Your task to perform on an android device: Open the Play Movies app and select the watchlist tab. Image 0: 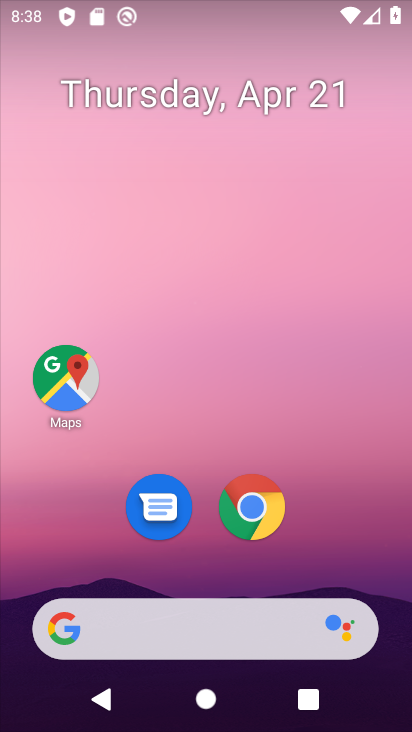
Step 0: drag from (365, 549) to (355, 82)
Your task to perform on an android device: Open the Play Movies app and select the watchlist tab. Image 1: 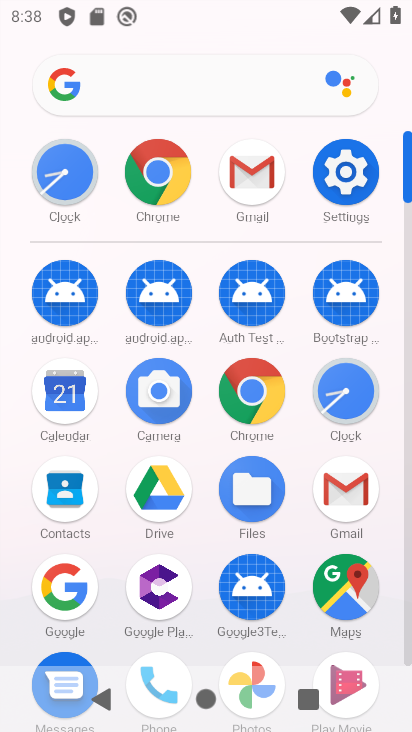
Step 1: drag from (383, 528) to (386, 220)
Your task to perform on an android device: Open the Play Movies app and select the watchlist tab. Image 2: 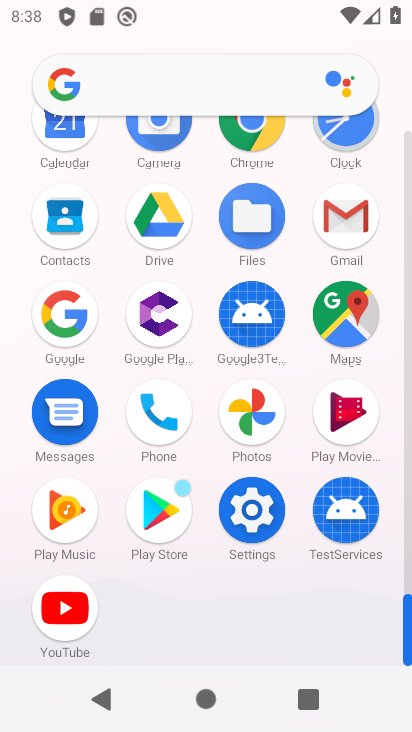
Step 2: click (356, 409)
Your task to perform on an android device: Open the Play Movies app and select the watchlist tab. Image 3: 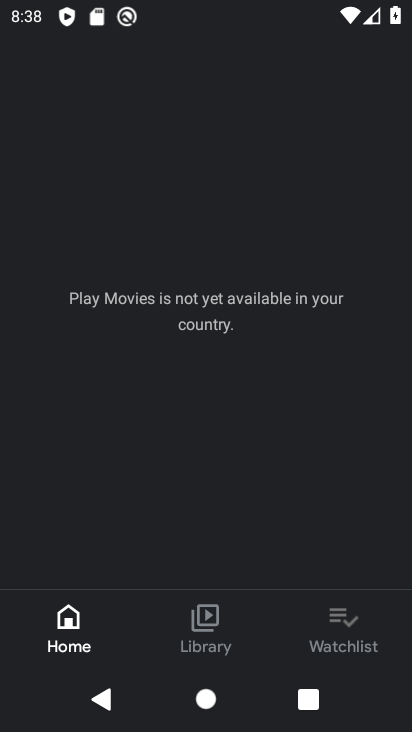
Step 3: click (313, 625)
Your task to perform on an android device: Open the Play Movies app and select the watchlist tab. Image 4: 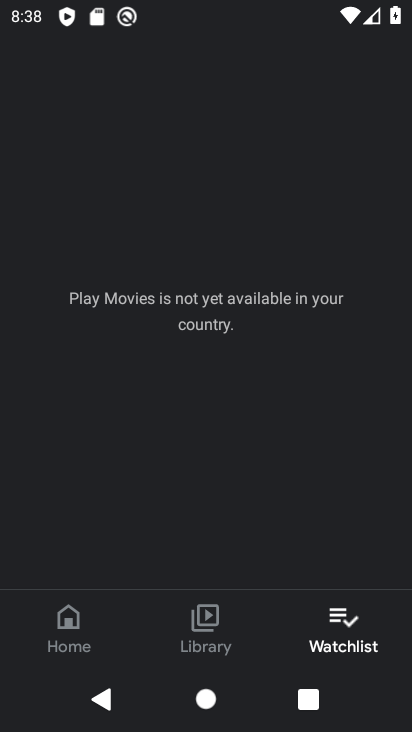
Step 4: task complete